Your task to perform on an android device: Open the Play Movies app and select the watchlist tab. Image 0: 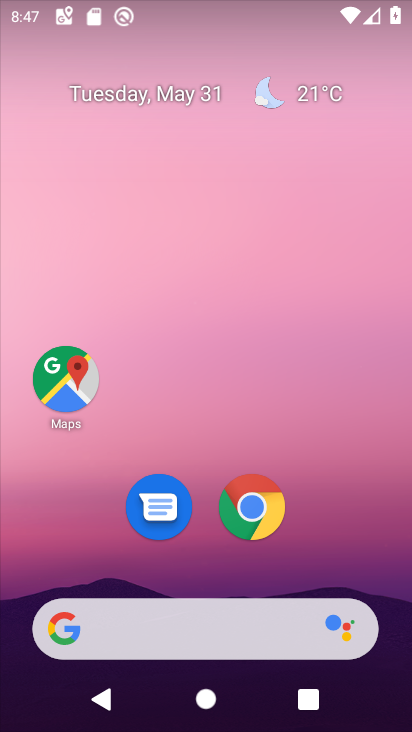
Step 0: click (196, 63)
Your task to perform on an android device: Open the Play Movies app and select the watchlist tab. Image 1: 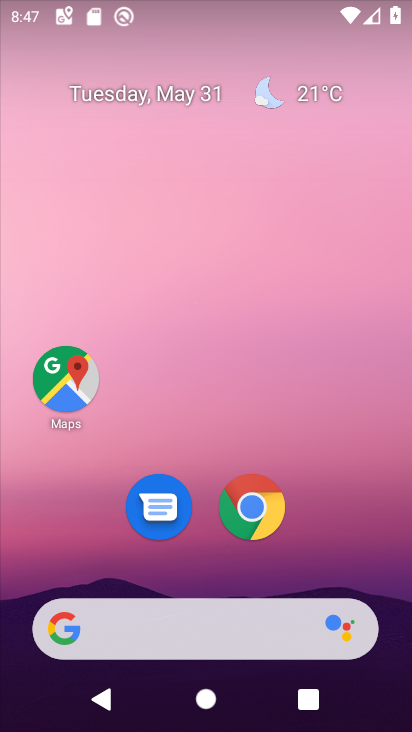
Step 1: drag from (232, 584) to (241, 0)
Your task to perform on an android device: Open the Play Movies app and select the watchlist tab. Image 2: 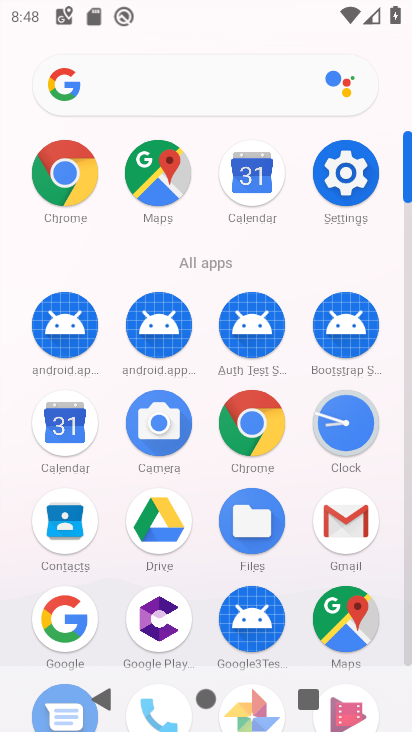
Step 2: drag from (290, 569) to (304, 413)
Your task to perform on an android device: Open the Play Movies app and select the watchlist tab. Image 3: 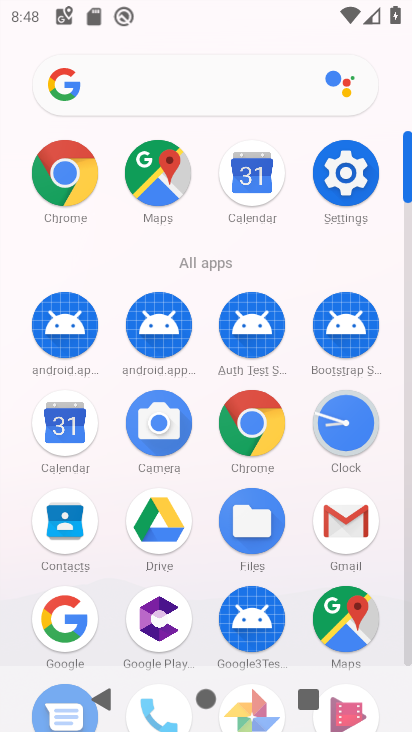
Step 3: drag from (309, 489) to (271, 74)
Your task to perform on an android device: Open the Play Movies app and select the watchlist tab. Image 4: 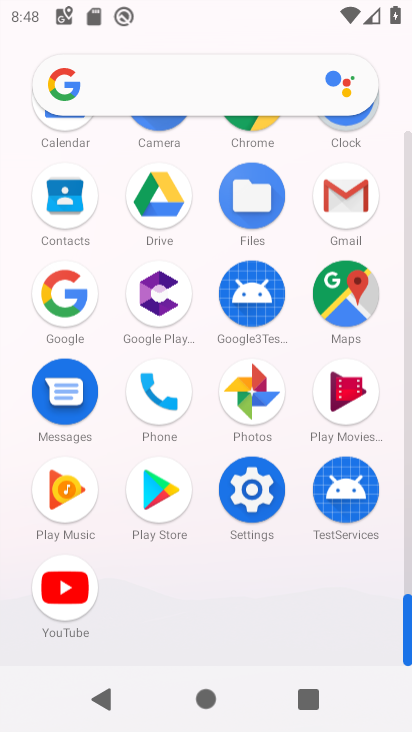
Step 4: drag from (294, 468) to (253, 155)
Your task to perform on an android device: Open the Play Movies app and select the watchlist tab. Image 5: 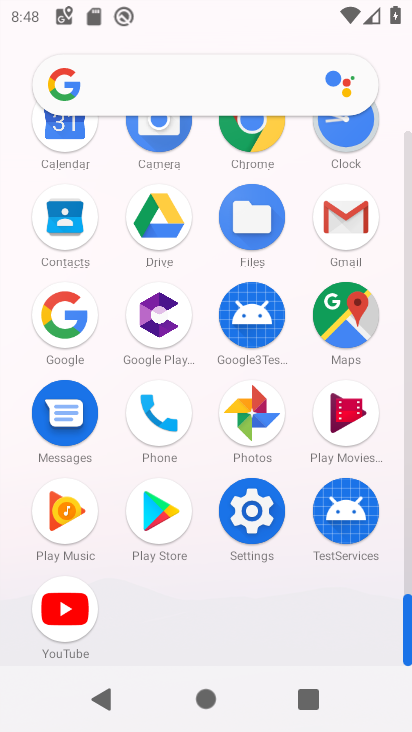
Step 5: click (343, 411)
Your task to perform on an android device: Open the Play Movies app and select the watchlist tab. Image 6: 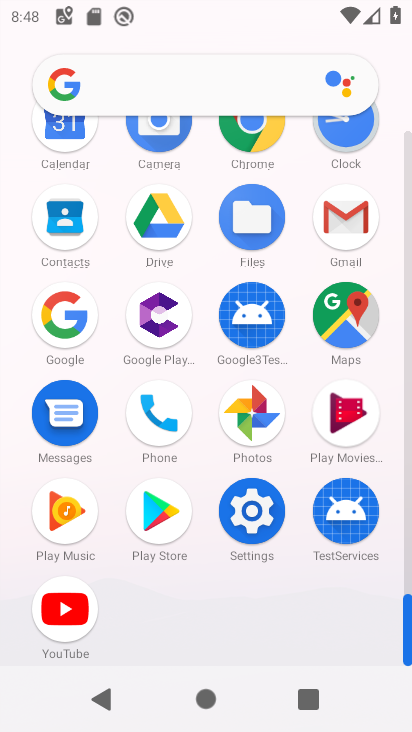
Step 6: click (343, 411)
Your task to perform on an android device: Open the Play Movies app and select the watchlist tab. Image 7: 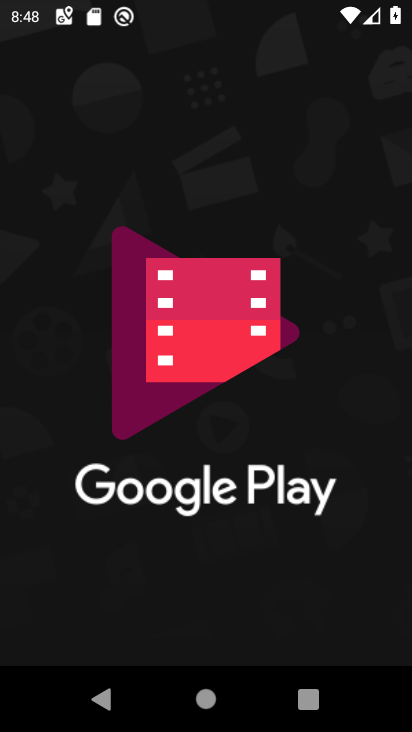
Step 7: drag from (258, 546) to (206, 239)
Your task to perform on an android device: Open the Play Movies app and select the watchlist tab. Image 8: 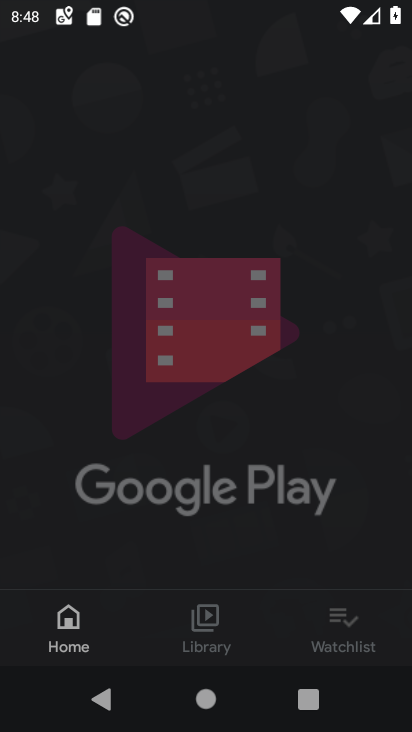
Step 8: drag from (268, 492) to (206, 70)
Your task to perform on an android device: Open the Play Movies app and select the watchlist tab. Image 9: 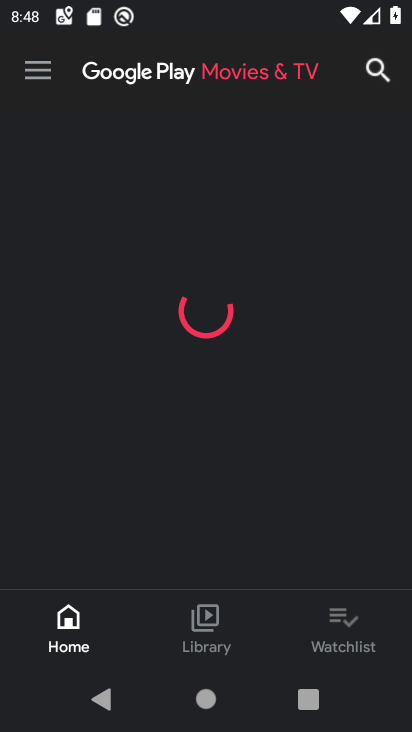
Step 9: drag from (242, 391) to (229, 226)
Your task to perform on an android device: Open the Play Movies app and select the watchlist tab. Image 10: 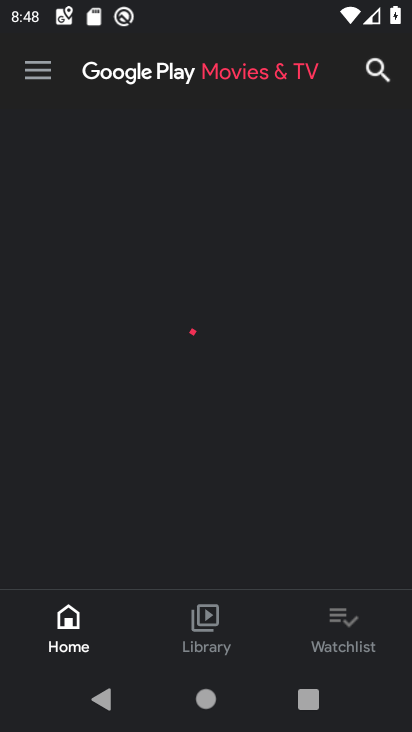
Step 10: click (349, 618)
Your task to perform on an android device: Open the Play Movies app and select the watchlist tab. Image 11: 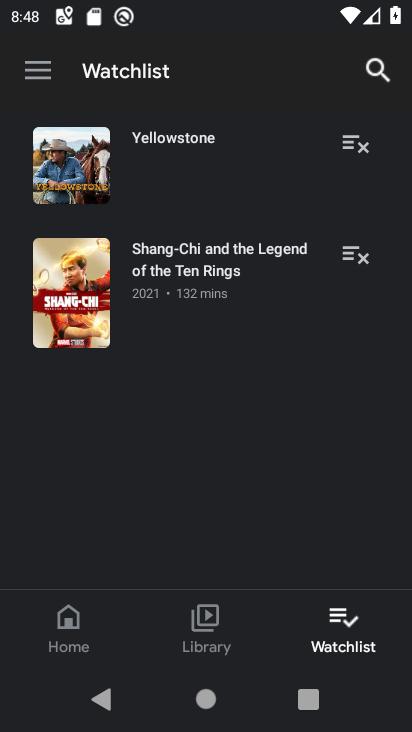
Step 11: click (348, 619)
Your task to perform on an android device: Open the Play Movies app and select the watchlist tab. Image 12: 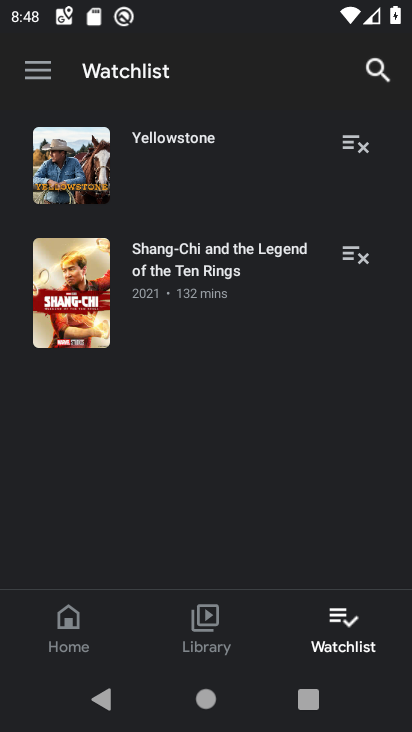
Step 12: click (346, 625)
Your task to perform on an android device: Open the Play Movies app and select the watchlist tab. Image 13: 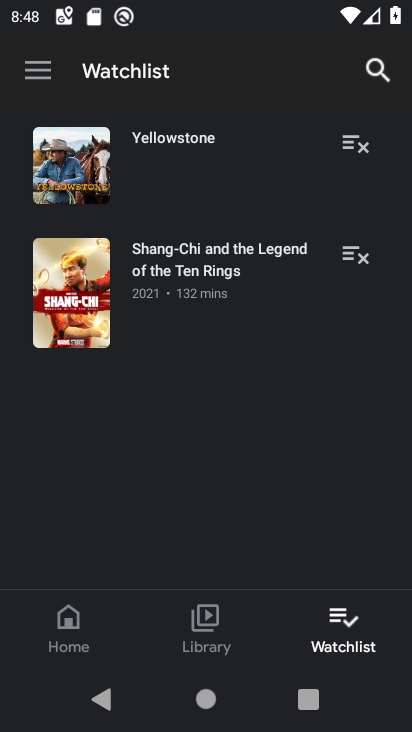
Step 13: click (346, 625)
Your task to perform on an android device: Open the Play Movies app and select the watchlist tab. Image 14: 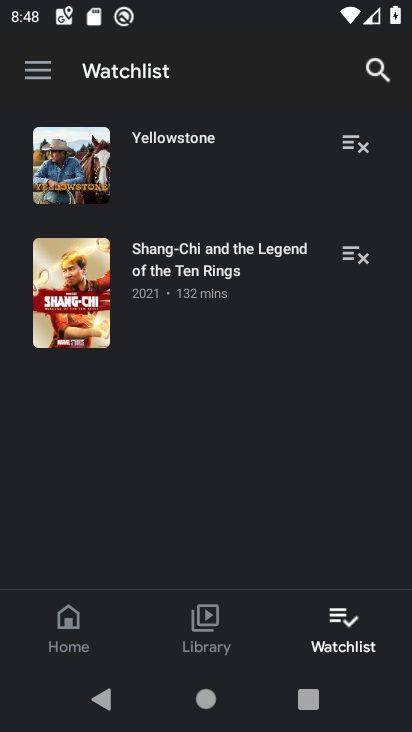
Step 14: task complete